Your task to perform on an android device: Open Android settings Image 0: 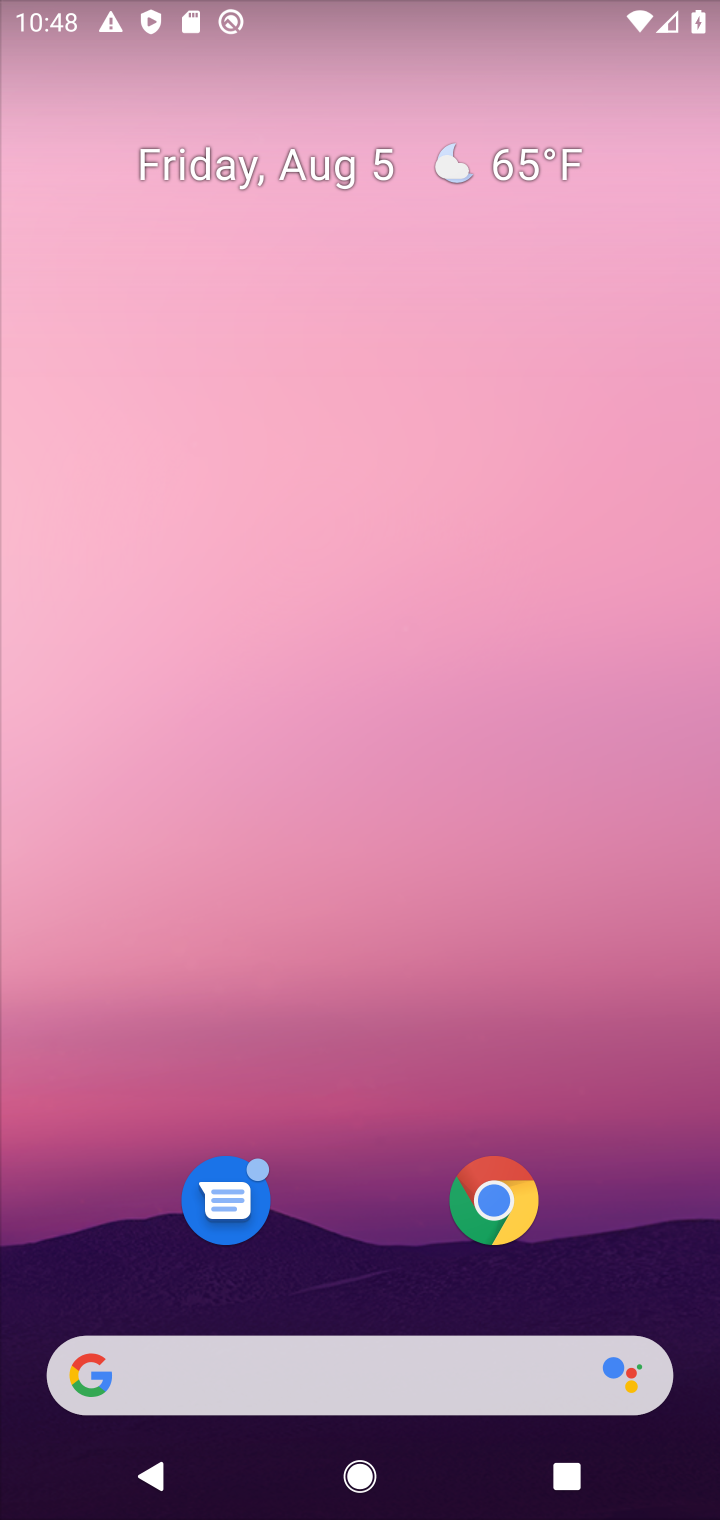
Step 0: drag from (460, 1254) to (513, 54)
Your task to perform on an android device: Open Android settings Image 1: 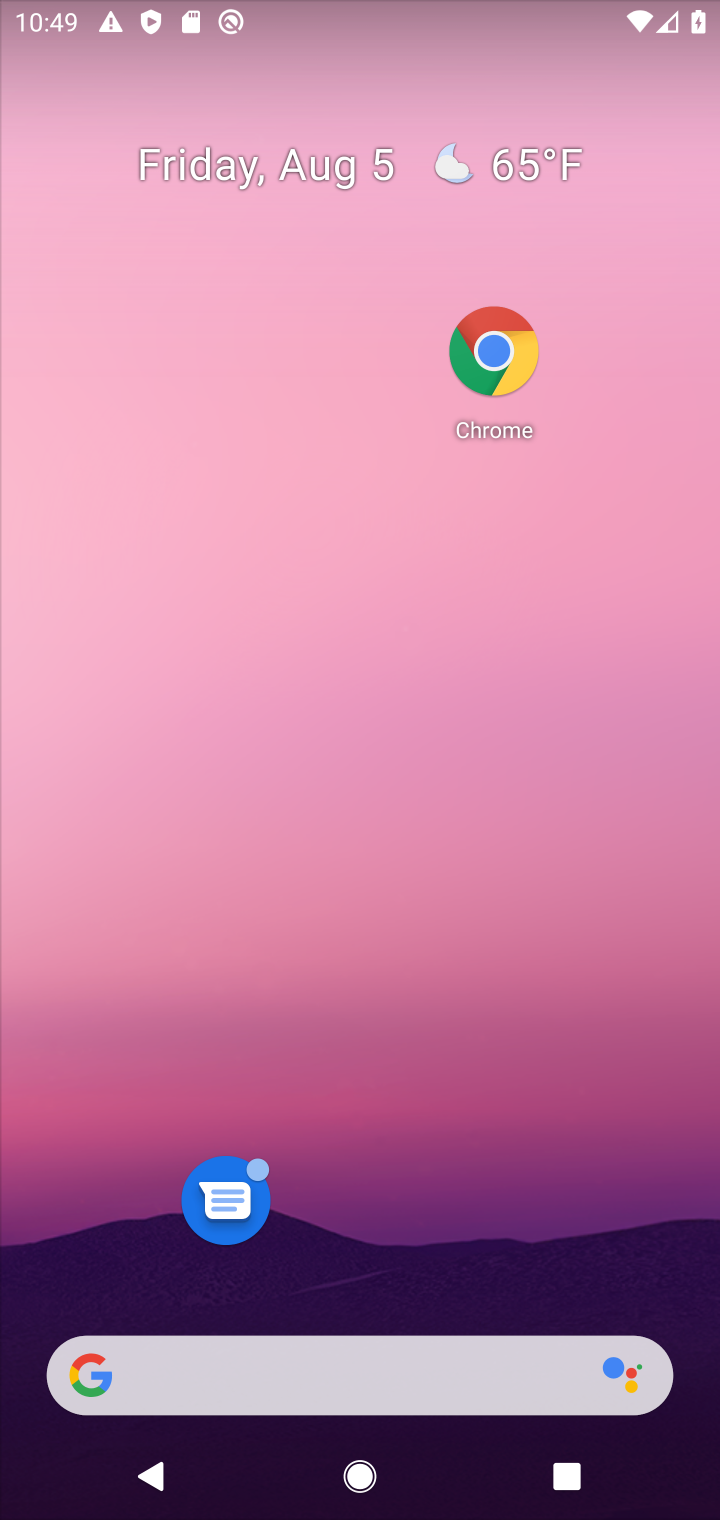
Step 1: drag from (460, 1127) to (499, 112)
Your task to perform on an android device: Open Android settings Image 2: 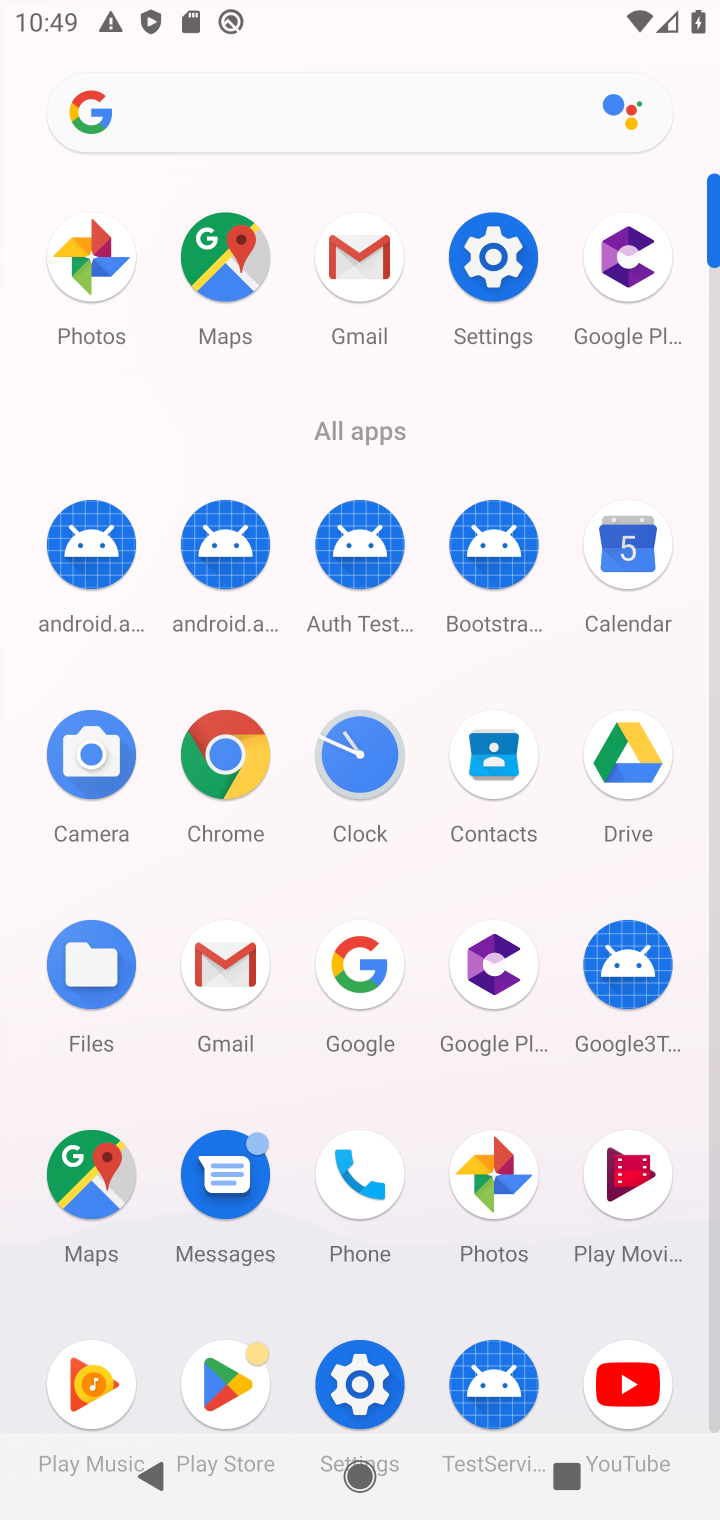
Step 2: click (477, 269)
Your task to perform on an android device: Open Android settings Image 3: 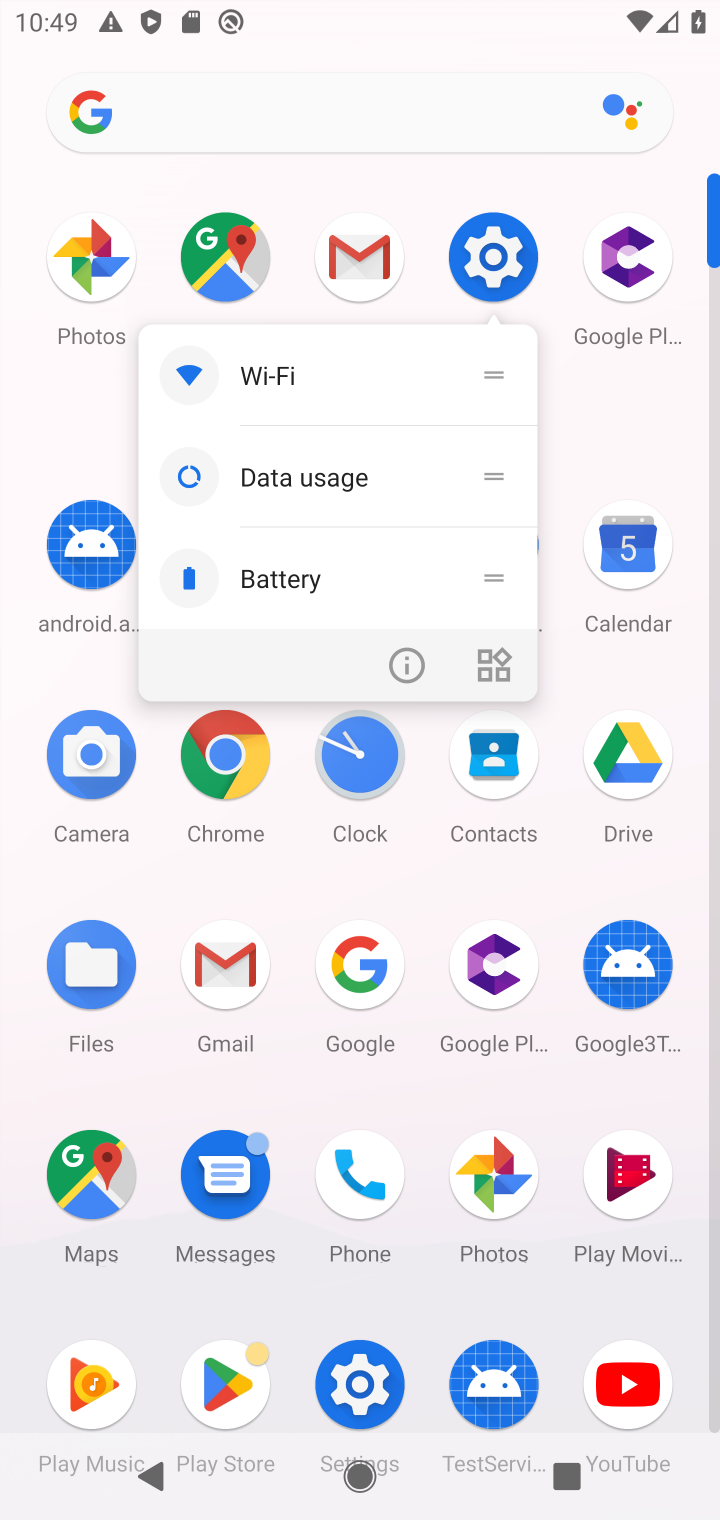
Step 3: click (535, 244)
Your task to perform on an android device: Open Android settings Image 4: 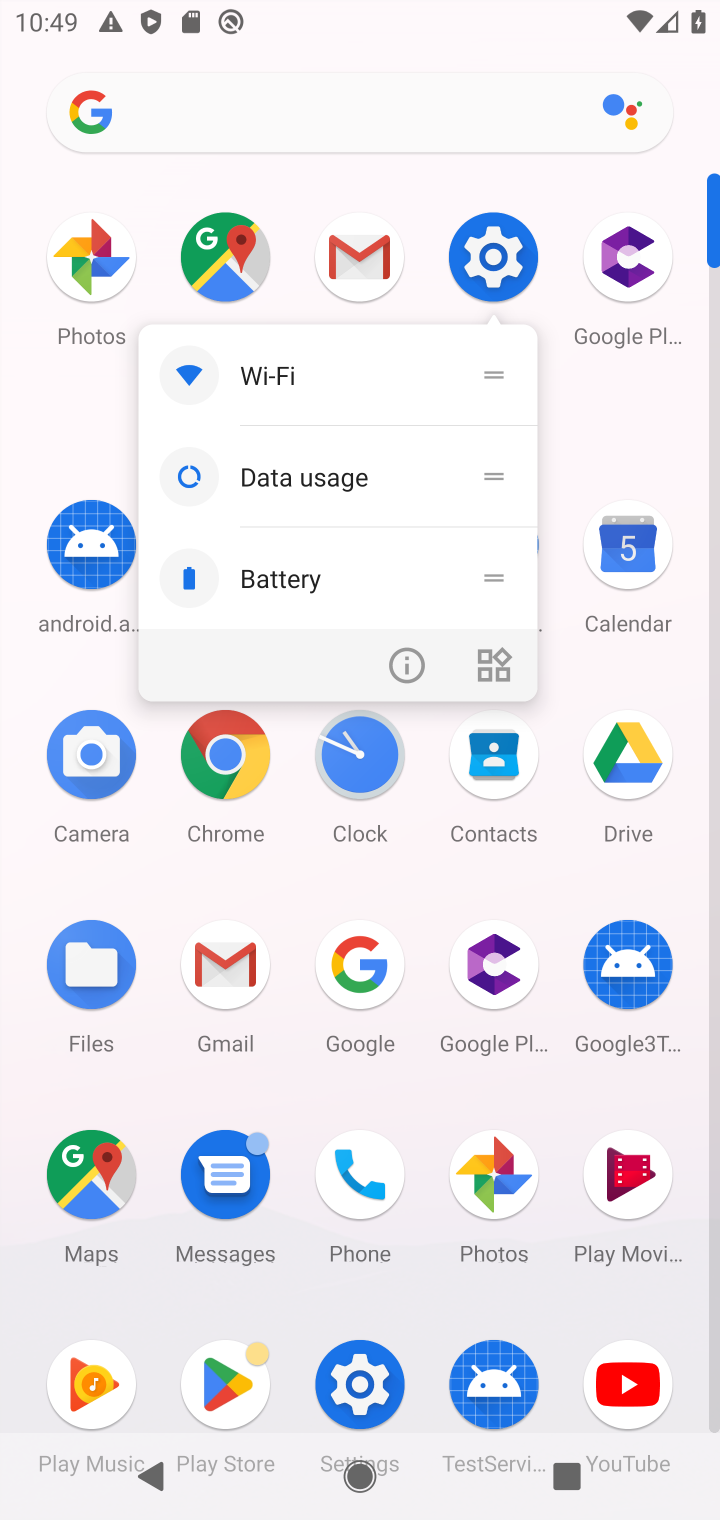
Step 4: click (532, 242)
Your task to perform on an android device: Open Android settings Image 5: 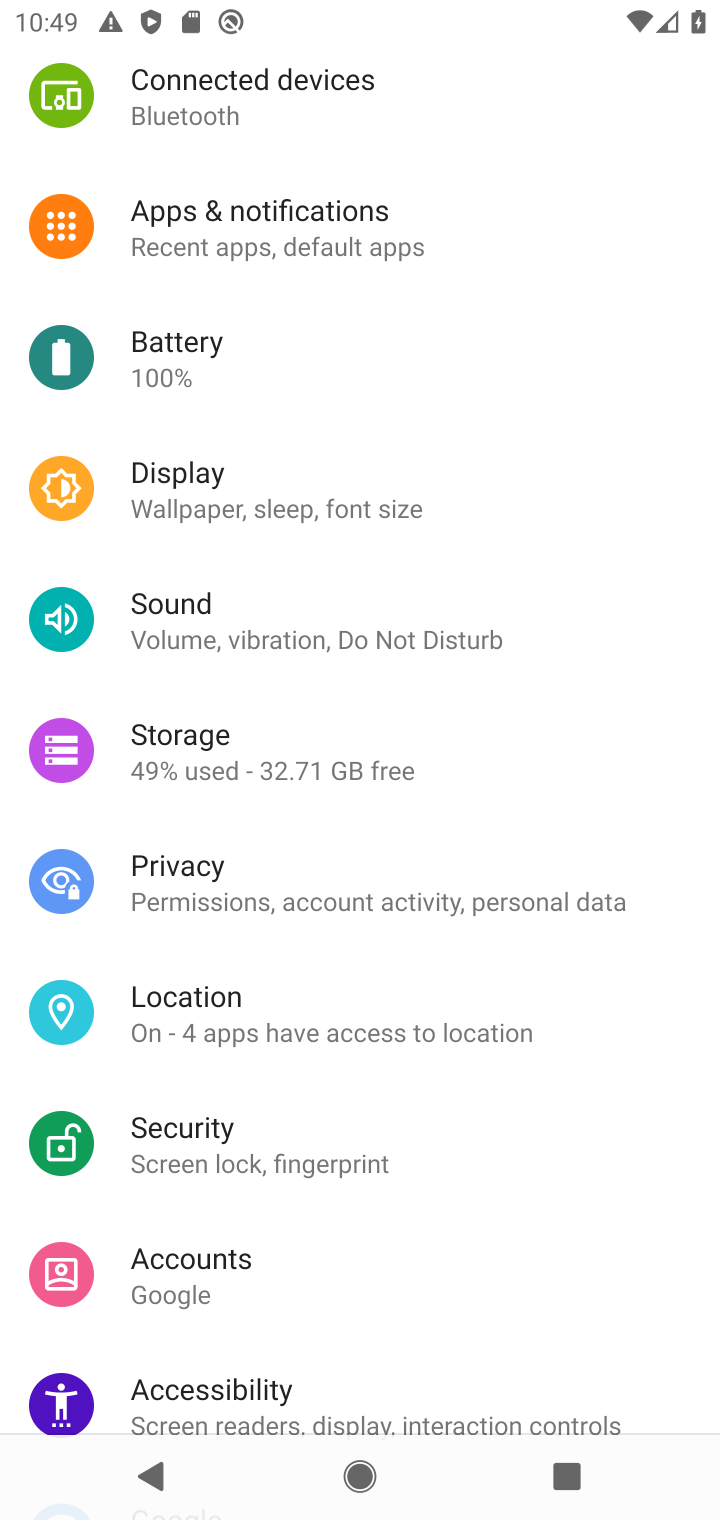
Step 5: drag from (347, 1148) to (182, 149)
Your task to perform on an android device: Open Android settings Image 6: 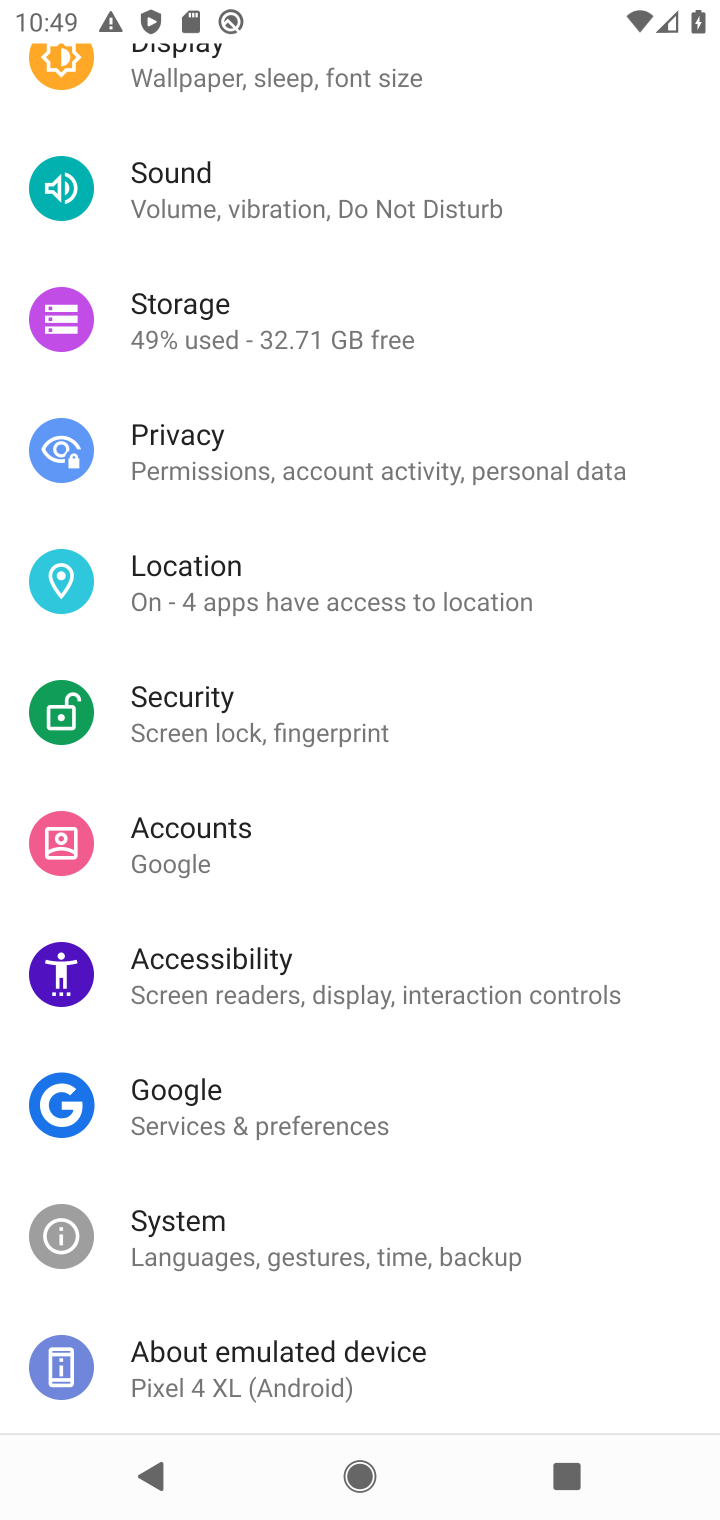
Step 6: click (292, 1368)
Your task to perform on an android device: Open Android settings Image 7: 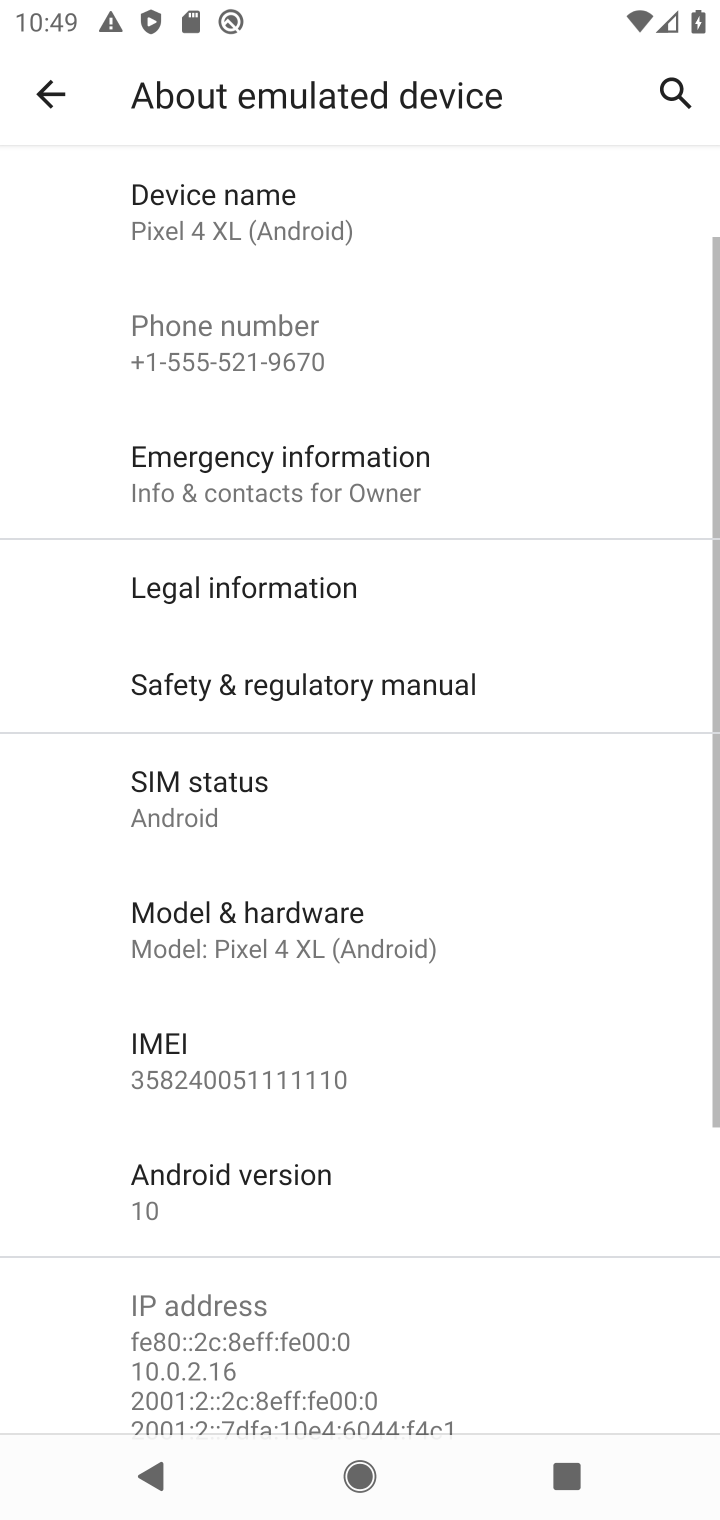
Step 7: click (363, 1202)
Your task to perform on an android device: Open Android settings Image 8: 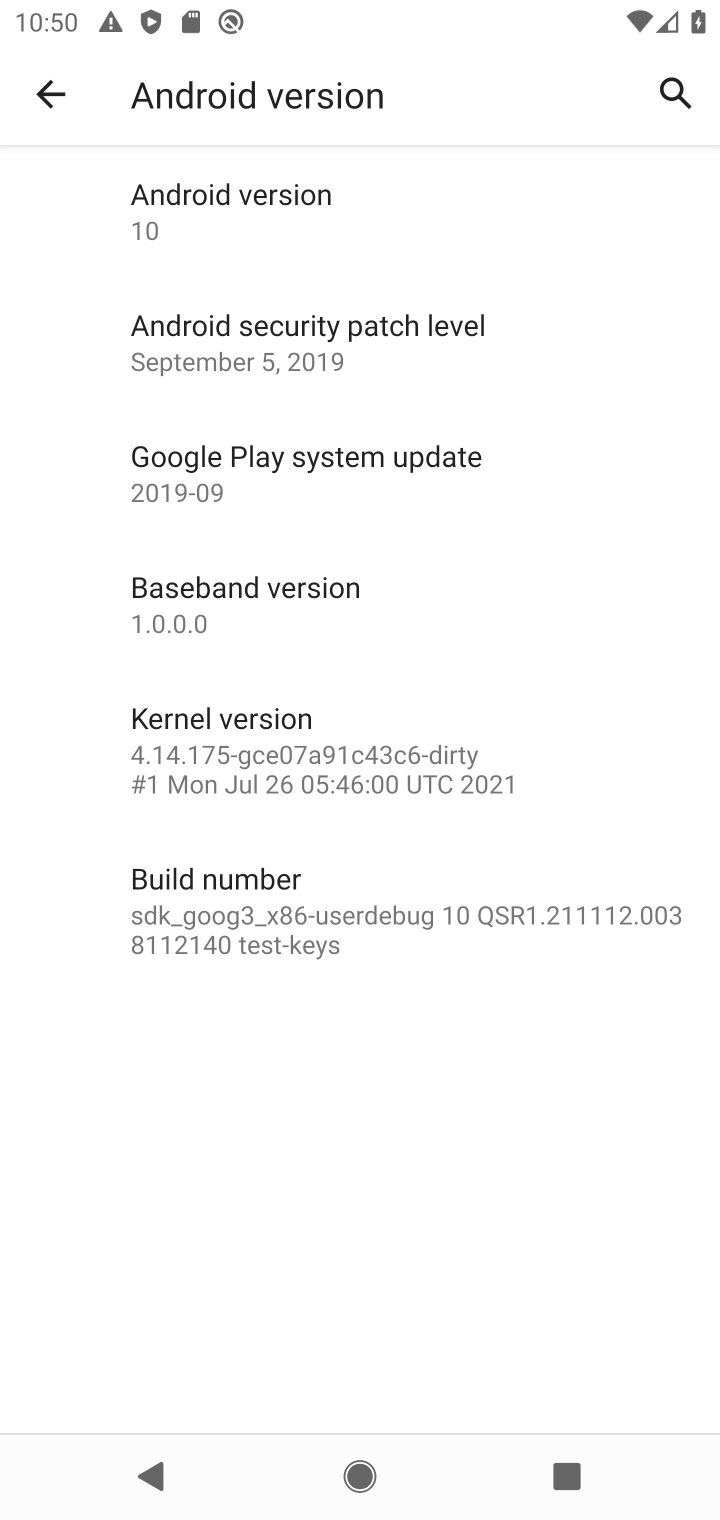
Step 8: click (274, 235)
Your task to perform on an android device: Open Android settings Image 9: 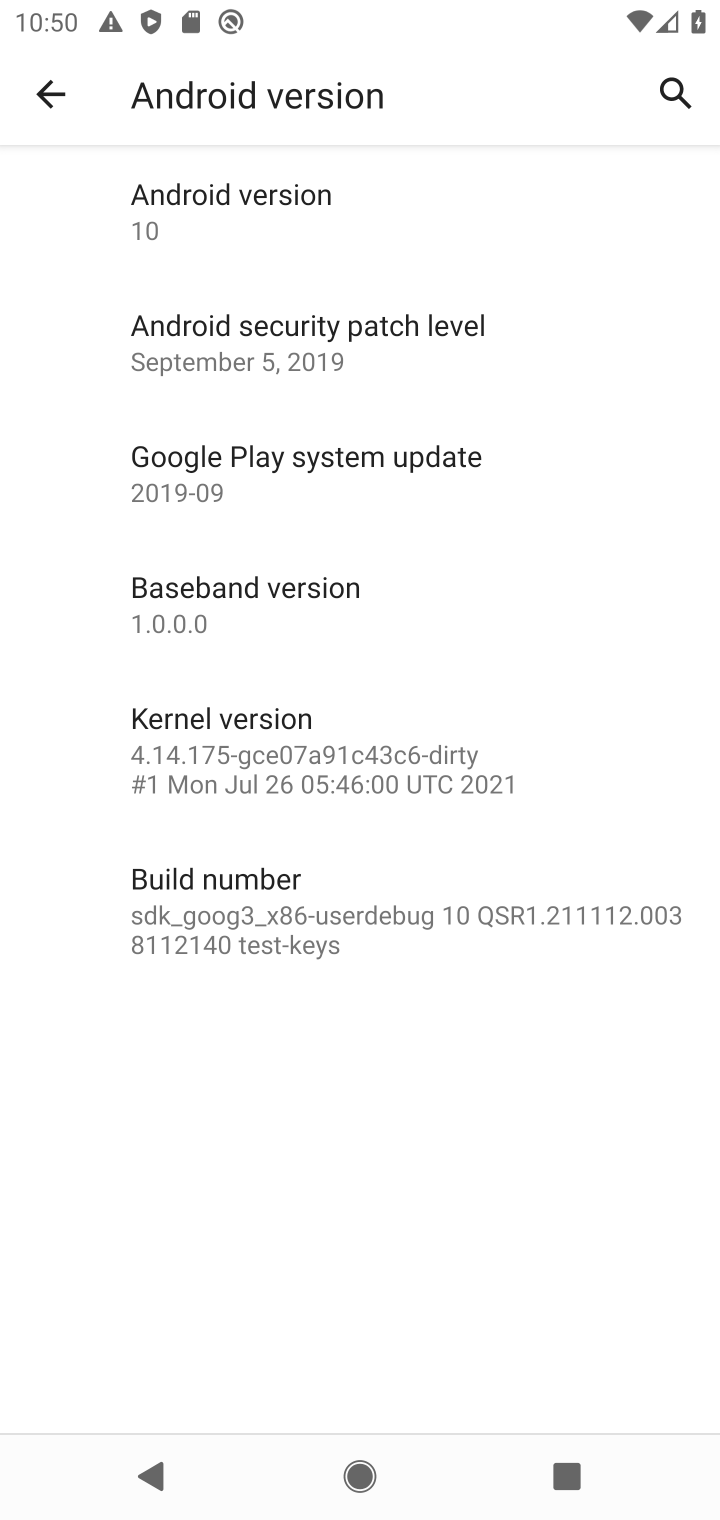
Step 9: task complete